Your task to perform on an android device: open a bookmark in the chrome app Image 0: 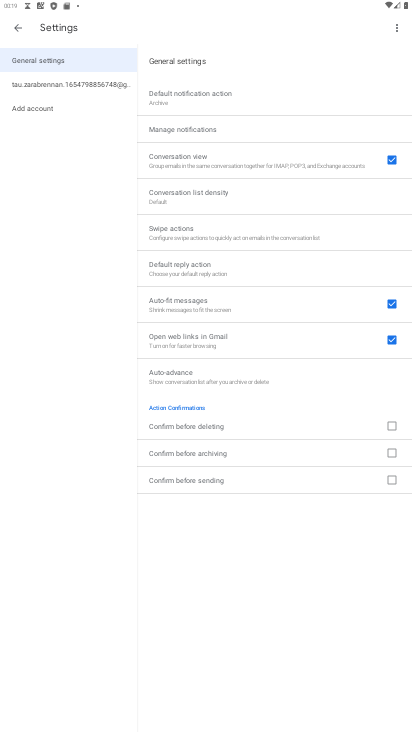
Step 0: press home button
Your task to perform on an android device: open a bookmark in the chrome app Image 1: 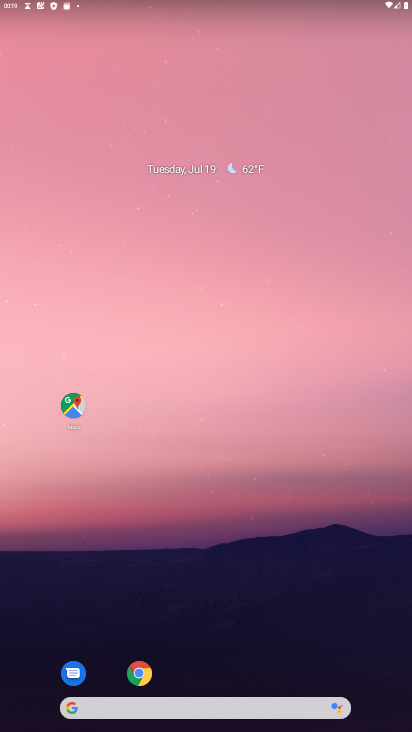
Step 1: drag from (266, 635) to (258, 221)
Your task to perform on an android device: open a bookmark in the chrome app Image 2: 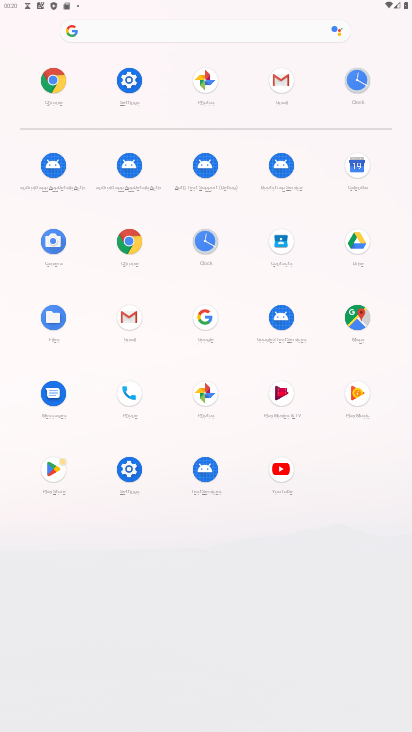
Step 2: click (55, 72)
Your task to perform on an android device: open a bookmark in the chrome app Image 3: 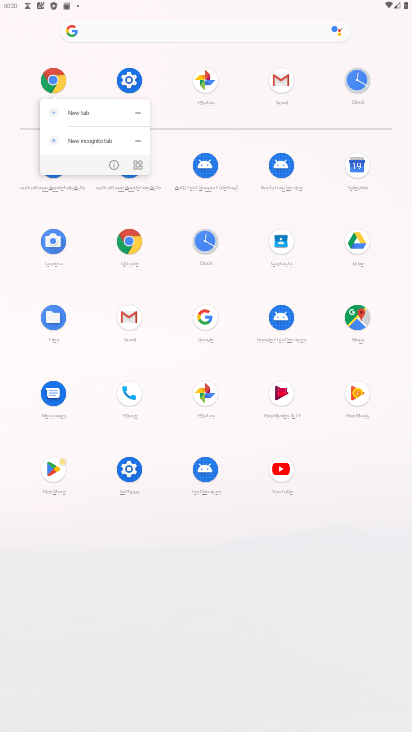
Step 3: click (43, 83)
Your task to perform on an android device: open a bookmark in the chrome app Image 4: 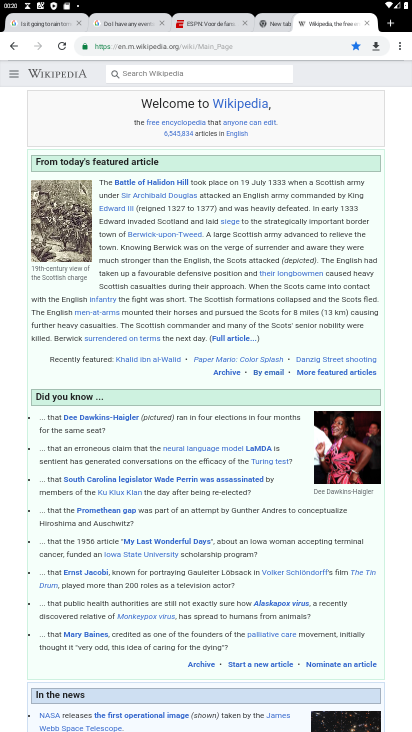
Step 4: click (57, 75)
Your task to perform on an android device: open a bookmark in the chrome app Image 5: 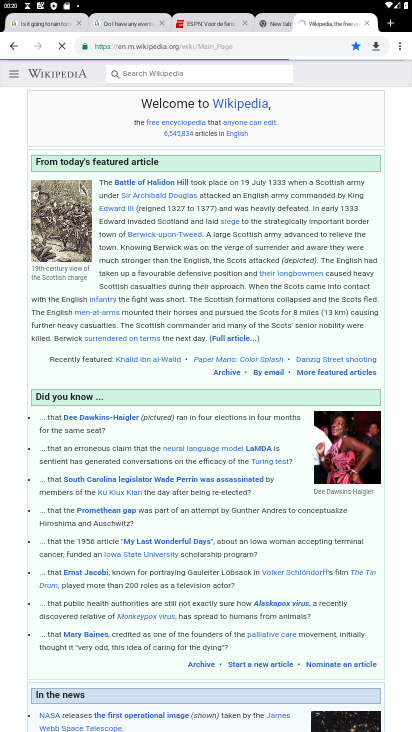
Step 5: click (405, 37)
Your task to perform on an android device: open a bookmark in the chrome app Image 6: 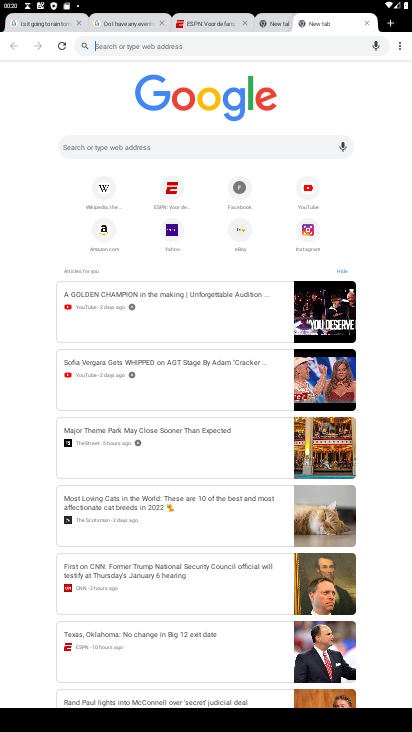
Step 6: click (408, 43)
Your task to perform on an android device: open a bookmark in the chrome app Image 7: 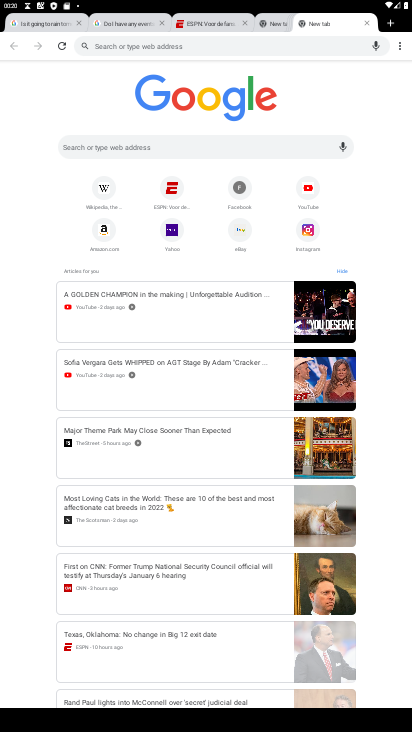
Step 7: click (406, 40)
Your task to perform on an android device: open a bookmark in the chrome app Image 8: 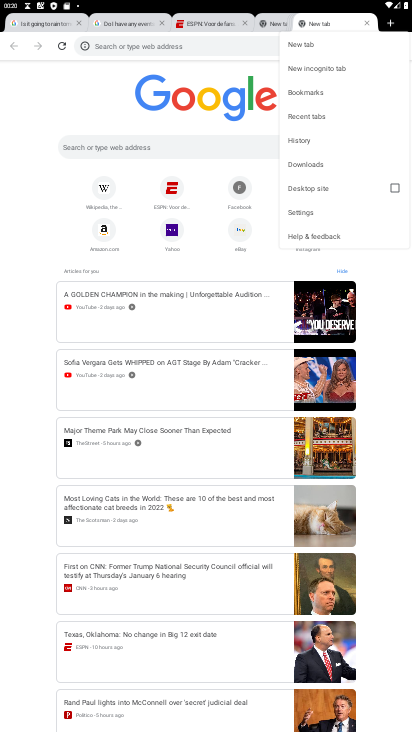
Step 8: click (320, 86)
Your task to perform on an android device: open a bookmark in the chrome app Image 9: 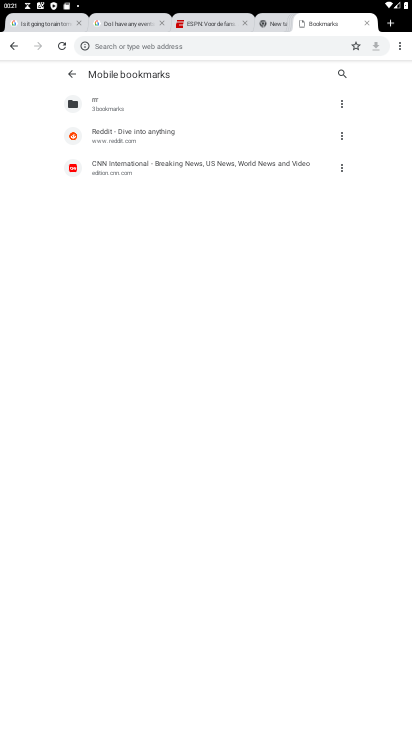
Step 9: task complete